Your task to perform on an android device: Search for handmade jewelry on Etsy. Image 0: 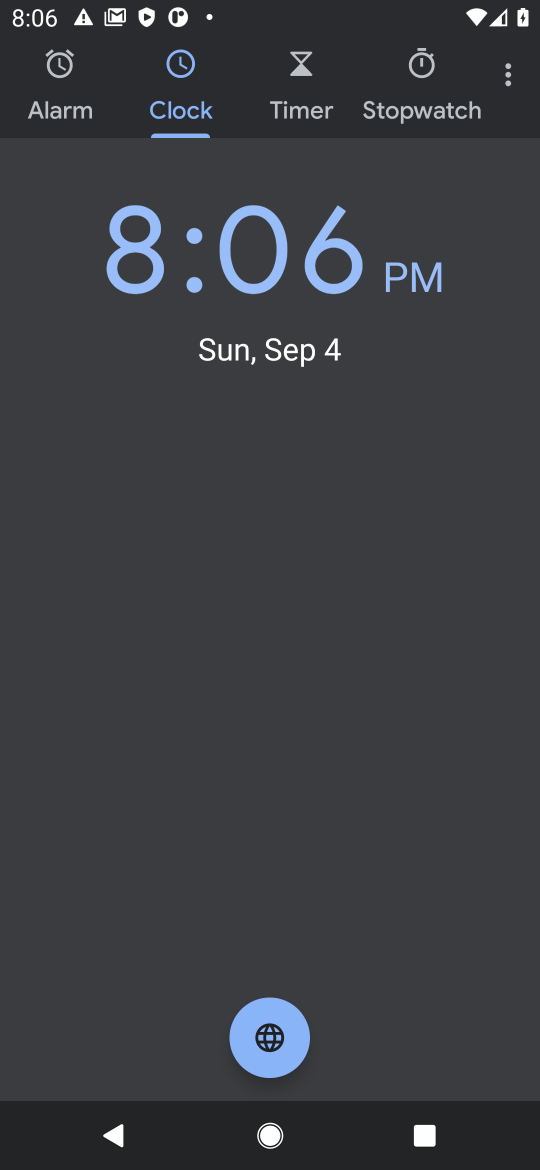
Step 0: press home button
Your task to perform on an android device: Search for handmade jewelry on Etsy. Image 1: 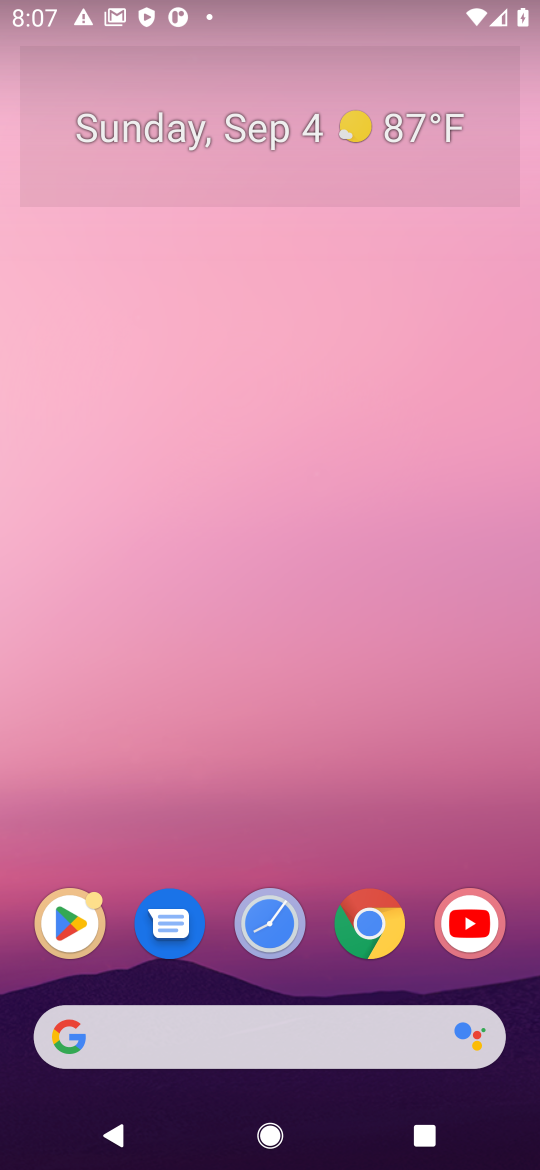
Step 1: click (404, 1038)
Your task to perform on an android device: Search for handmade jewelry on Etsy. Image 2: 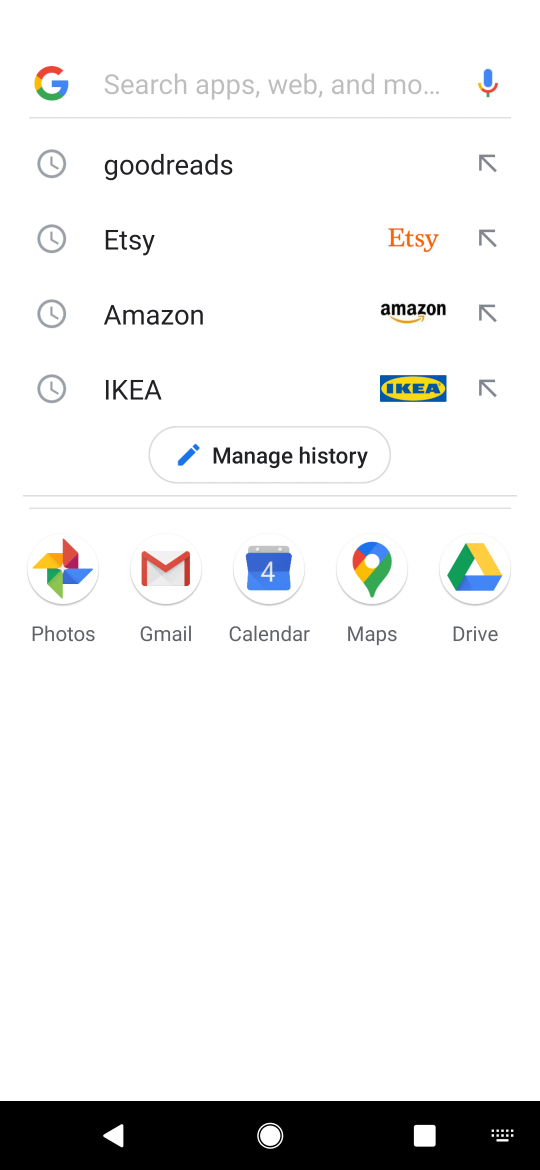
Step 2: press enter
Your task to perform on an android device: Search for handmade jewelry on Etsy. Image 3: 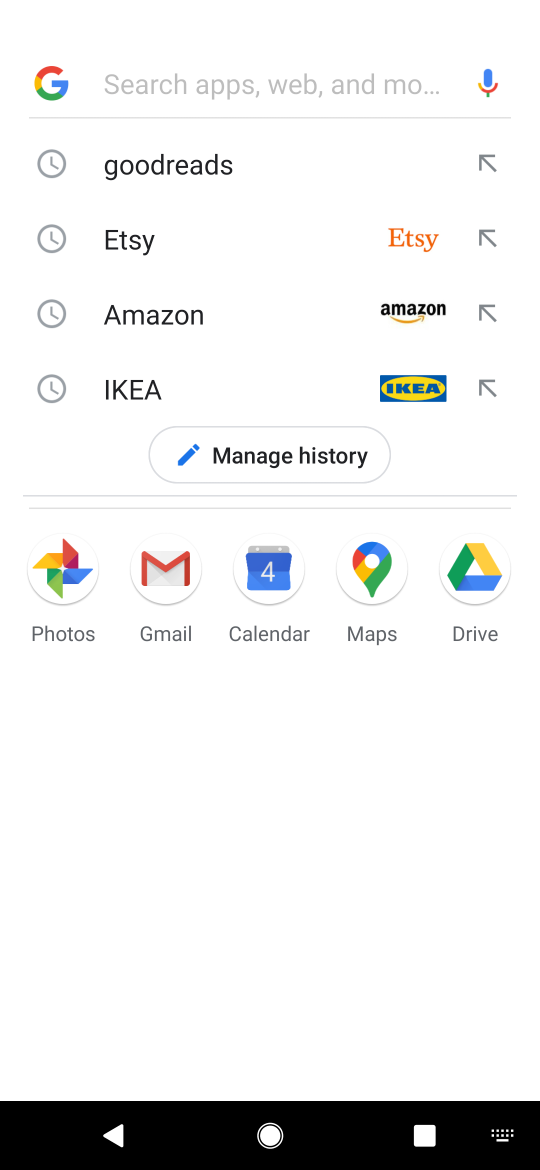
Step 3: type "etsy"
Your task to perform on an android device: Search for handmade jewelry on Etsy. Image 4: 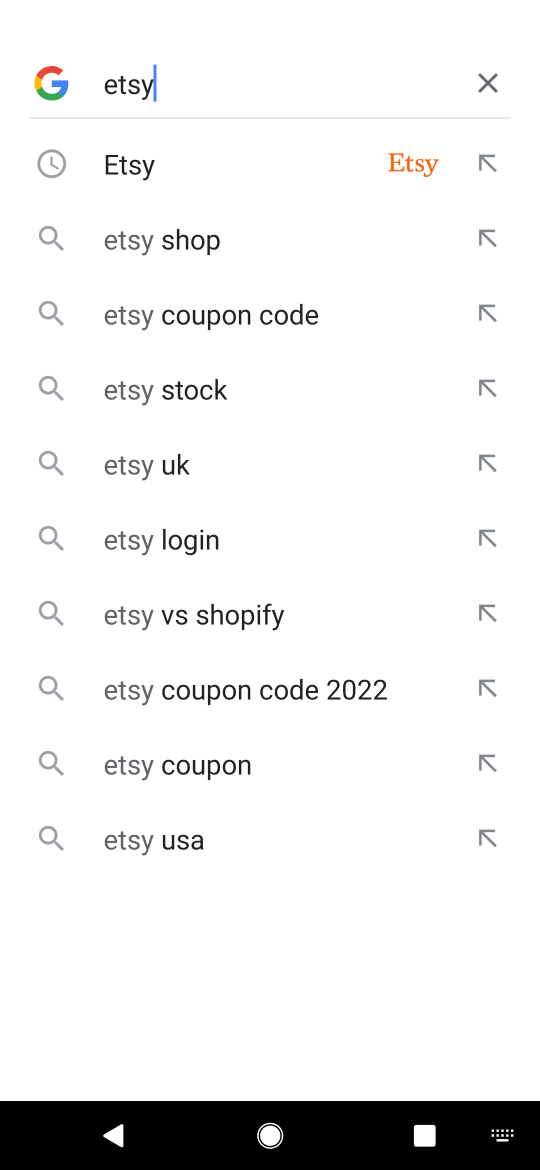
Step 4: click (209, 161)
Your task to perform on an android device: Search for handmade jewelry on Etsy. Image 5: 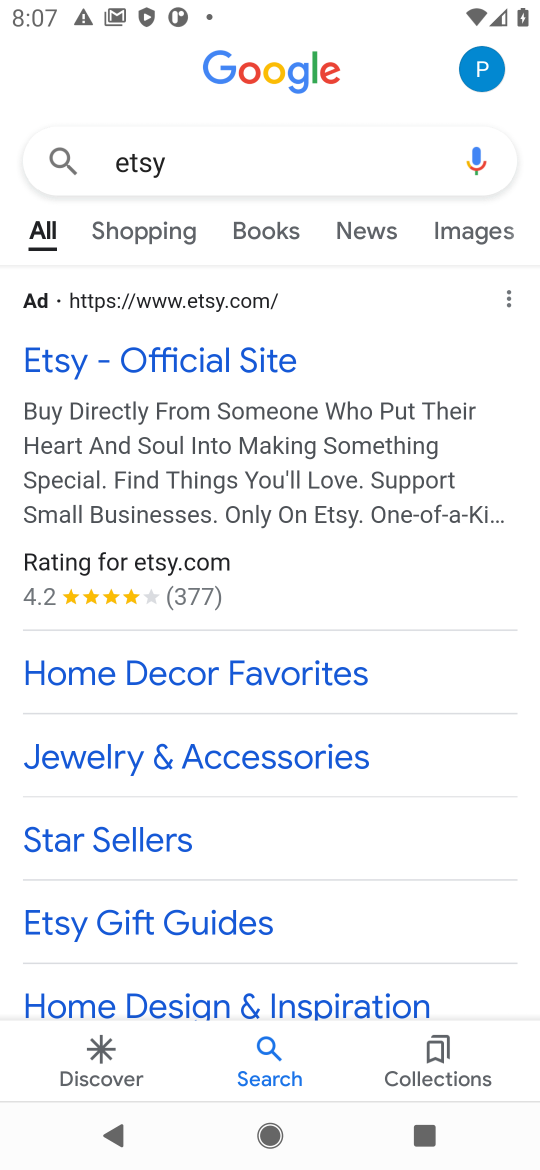
Step 5: click (190, 360)
Your task to perform on an android device: Search for handmade jewelry on Etsy. Image 6: 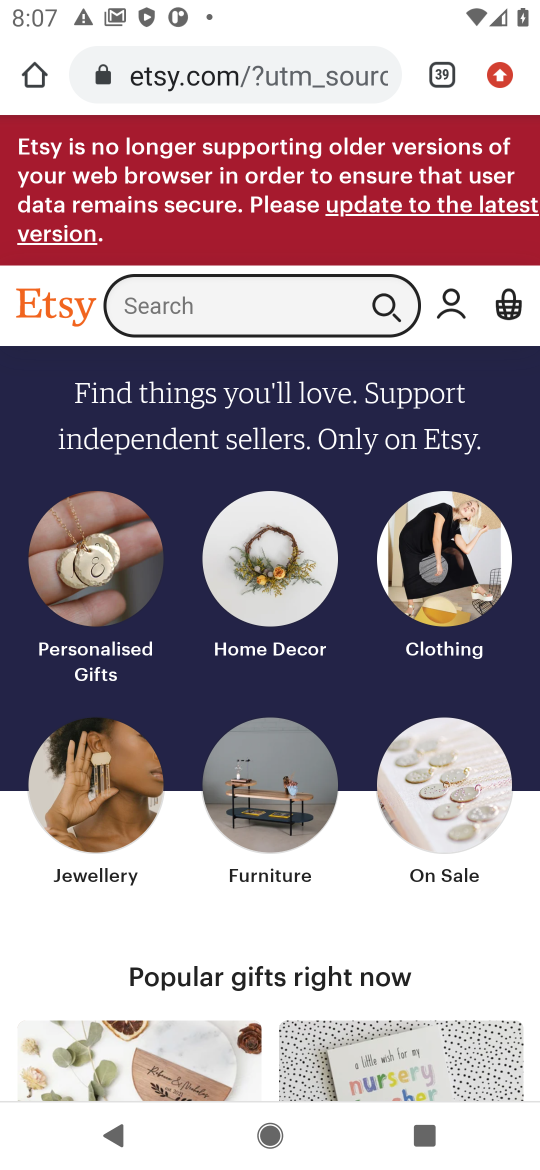
Step 6: click (164, 293)
Your task to perform on an android device: Search for handmade jewelry on Etsy. Image 7: 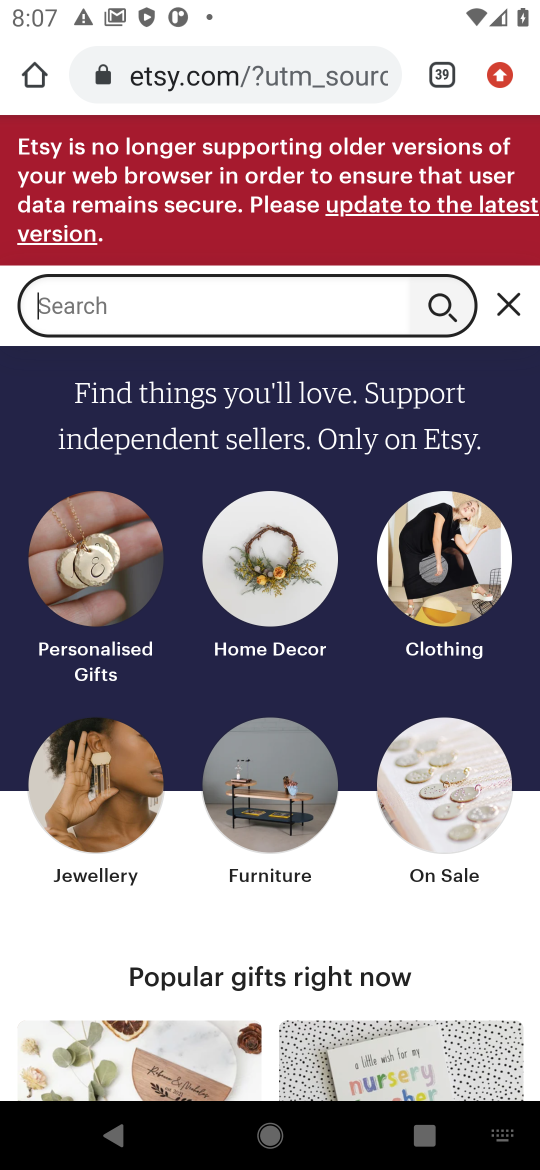
Step 7: type "handmade jewerly"
Your task to perform on an android device: Search for handmade jewelry on Etsy. Image 8: 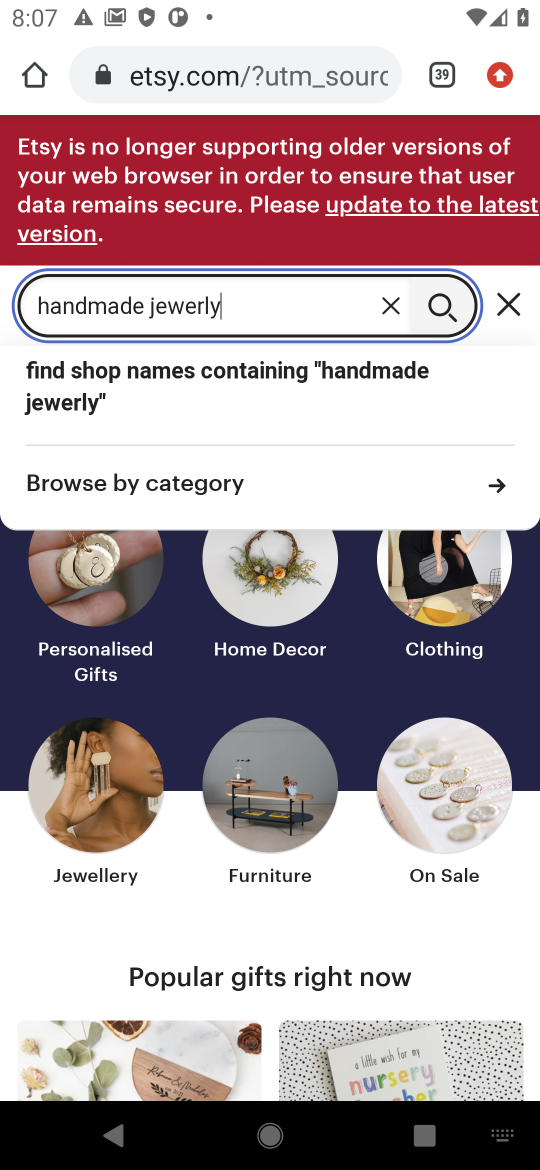
Step 8: click (449, 299)
Your task to perform on an android device: Search for handmade jewelry on Etsy. Image 9: 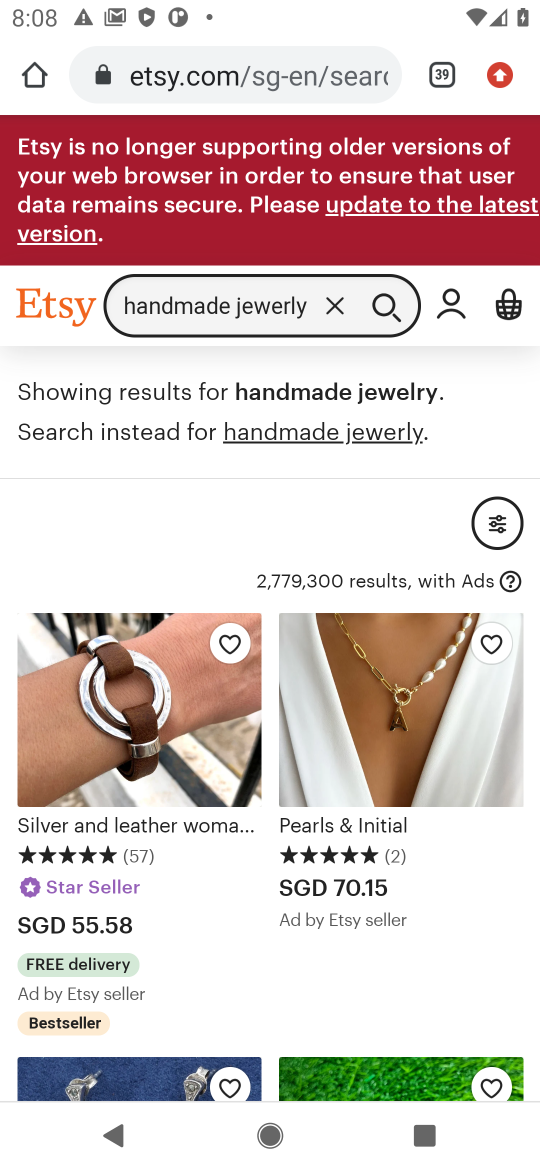
Step 9: task complete